Your task to perform on an android device: Clear all items from cart on bestbuy.com. Search for "macbook pro" on bestbuy.com, select the first entry, add it to the cart, then select checkout. Image 0: 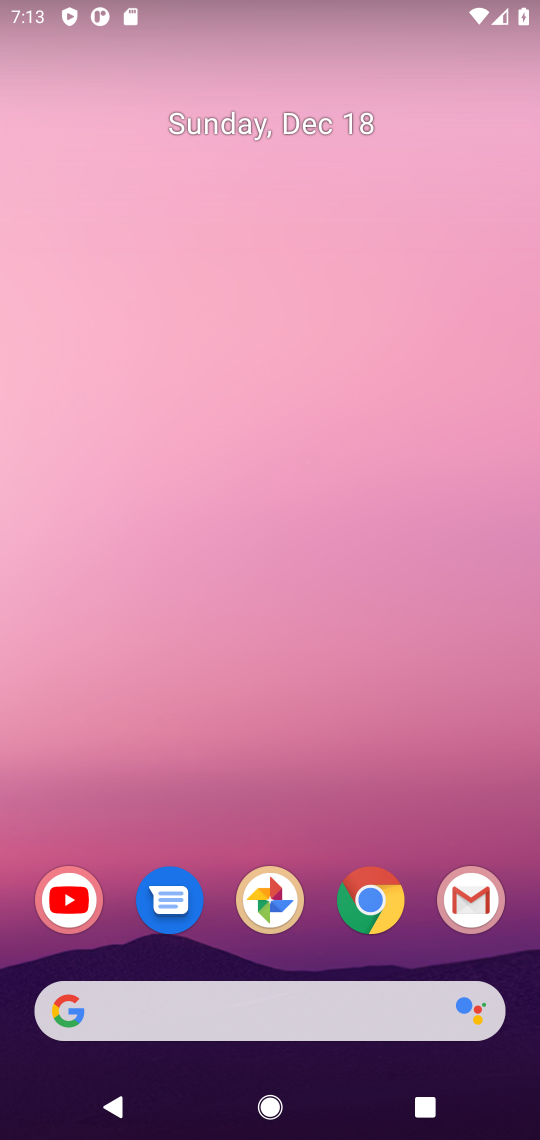
Step 0: click (382, 905)
Your task to perform on an android device: Clear all items from cart on bestbuy.com. Search for "macbook pro" on bestbuy.com, select the first entry, add it to the cart, then select checkout. Image 1: 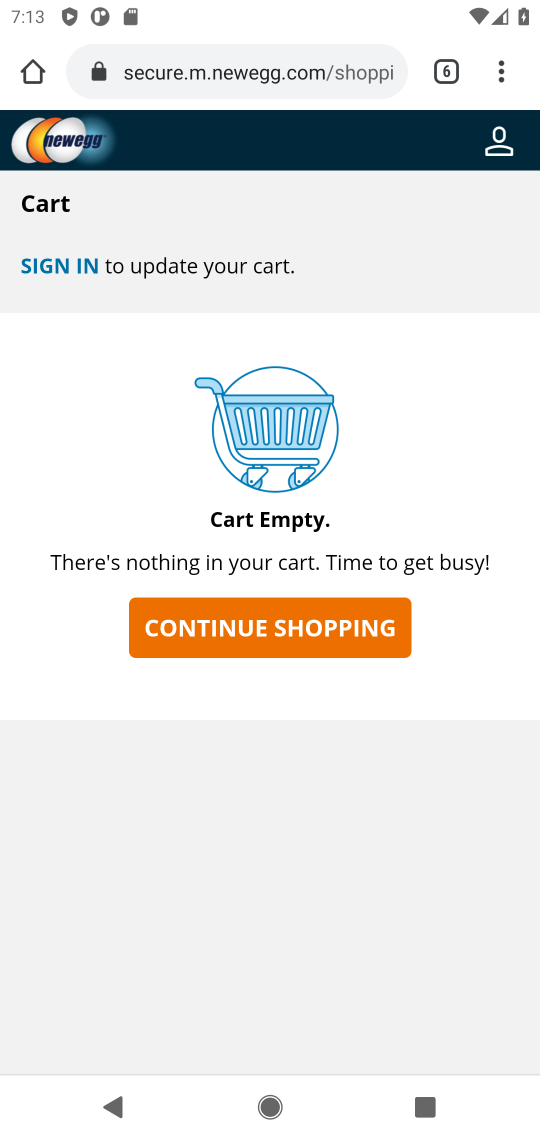
Step 1: click (432, 84)
Your task to perform on an android device: Clear all items from cart on bestbuy.com. Search for "macbook pro" on bestbuy.com, select the first entry, add it to the cart, then select checkout. Image 2: 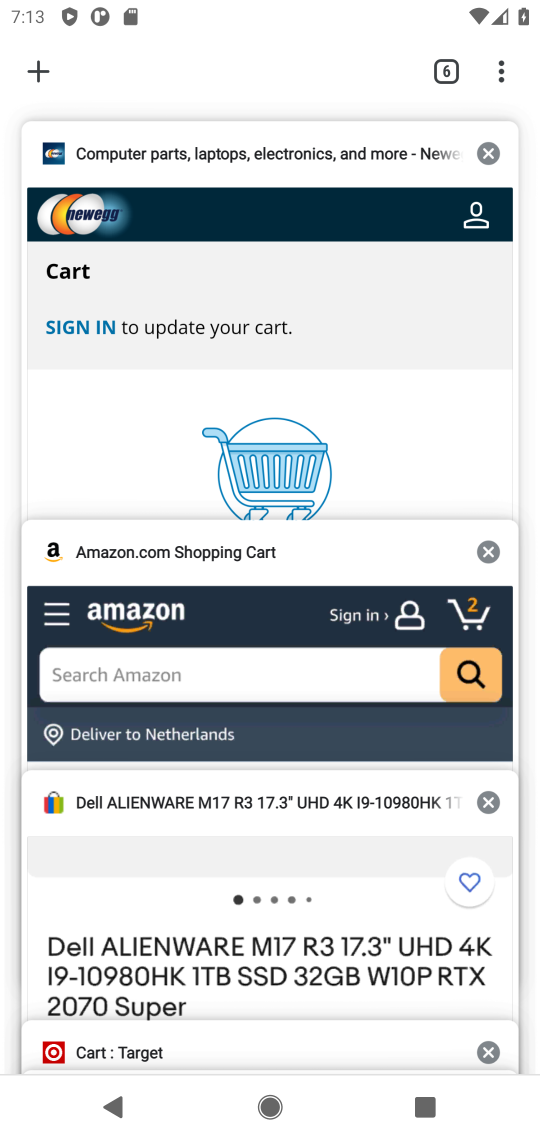
Step 2: drag from (283, 991) to (353, 213)
Your task to perform on an android device: Clear all items from cart on bestbuy.com. Search for "macbook pro" on bestbuy.com, select the first entry, add it to the cart, then select checkout. Image 3: 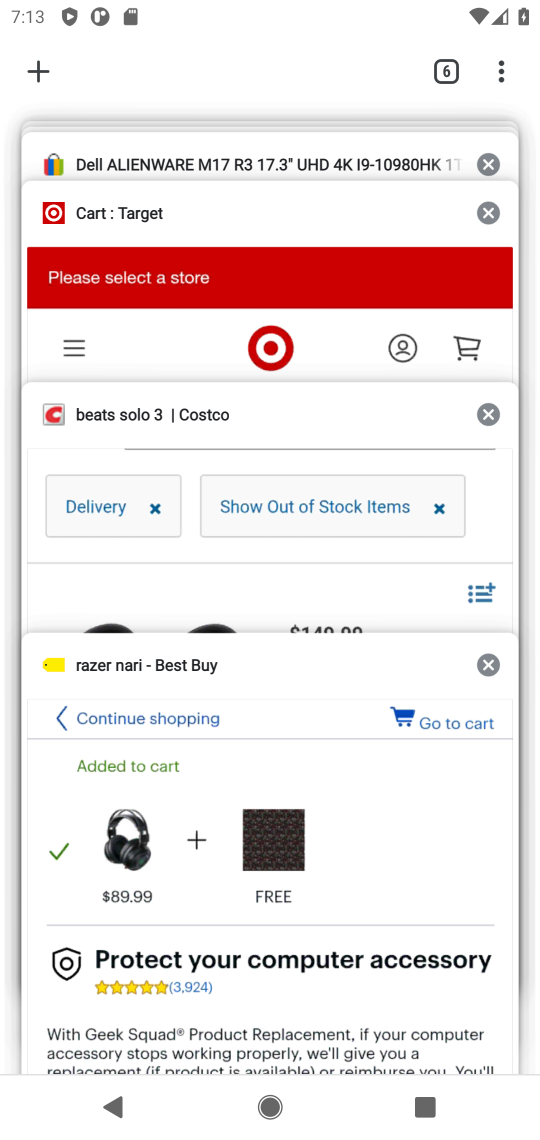
Step 3: click (274, 795)
Your task to perform on an android device: Clear all items from cart on bestbuy.com. Search for "macbook pro" on bestbuy.com, select the first entry, add it to the cart, then select checkout. Image 4: 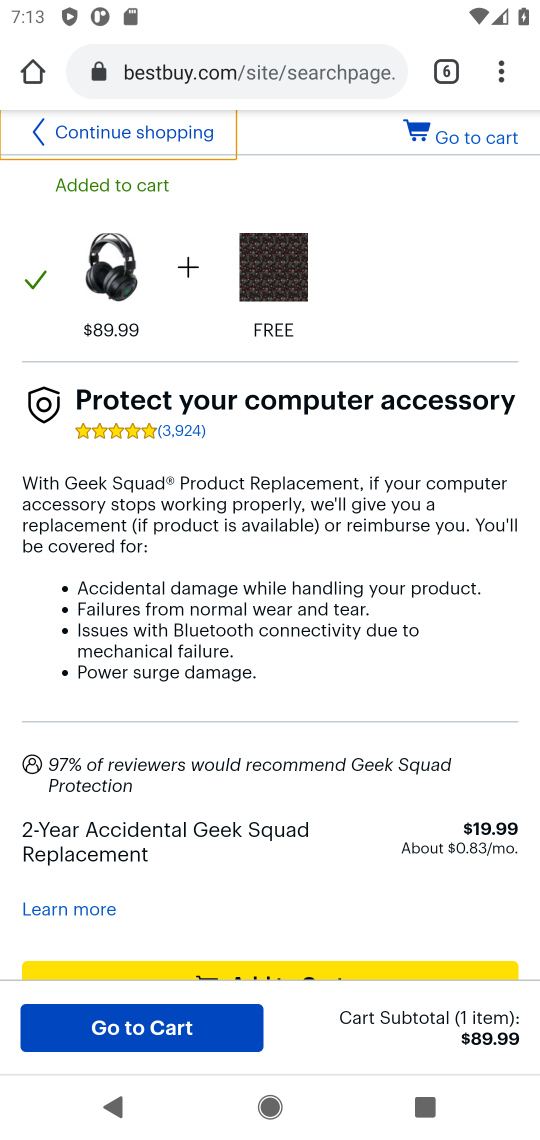
Step 4: click (455, 136)
Your task to perform on an android device: Clear all items from cart on bestbuy.com. Search for "macbook pro" on bestbuy.com, select the first entry, add it to the cart, then select checkout. Image 5: 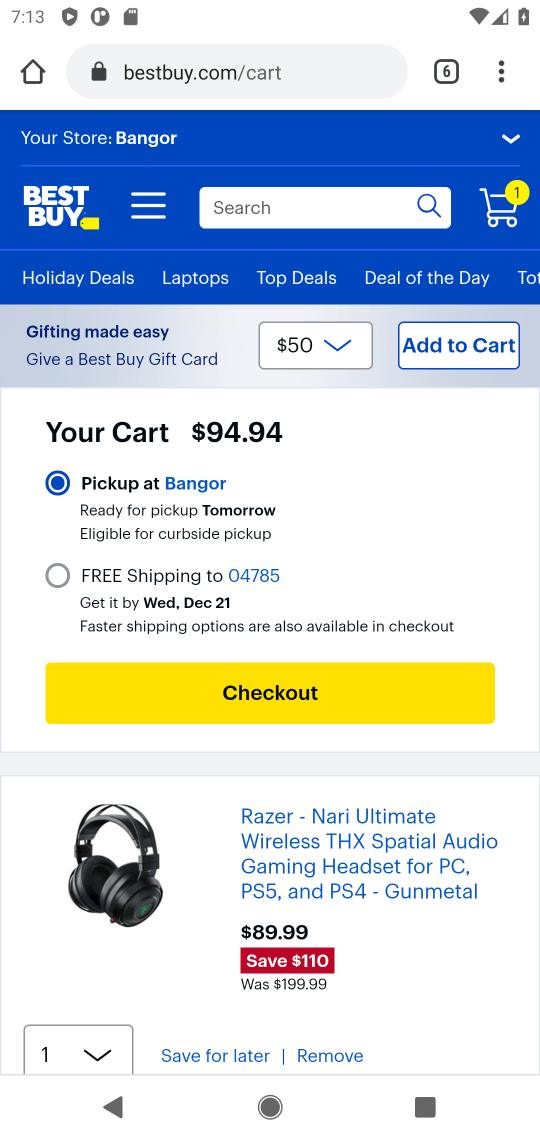
Step 5: click (332, 1052)
Your task to perform on an android device: Clear all items from cart on bestbuy.com. Search for "macbook pro" on bestbuy.com, select the first entry, add it to the cart, then select checkout. Image 6: 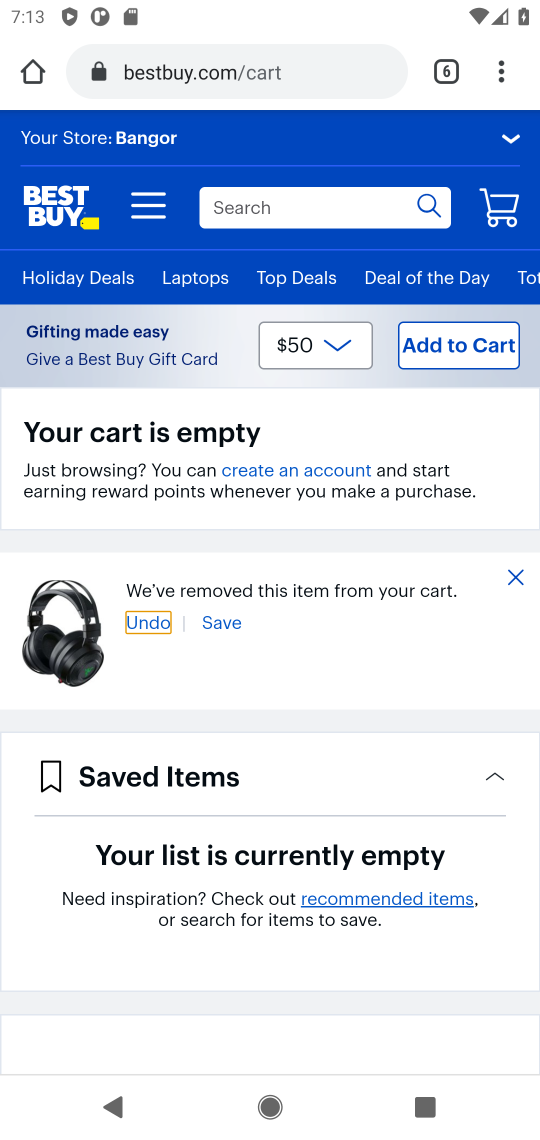
Step 6: click (266, 204)
Your task to perform on an android device: Clear all items from cart on bestbuy.com. Search for "macbook pro" on bestbuy.com, select the first entry, add it to the cart, then select checkout. Image 7: 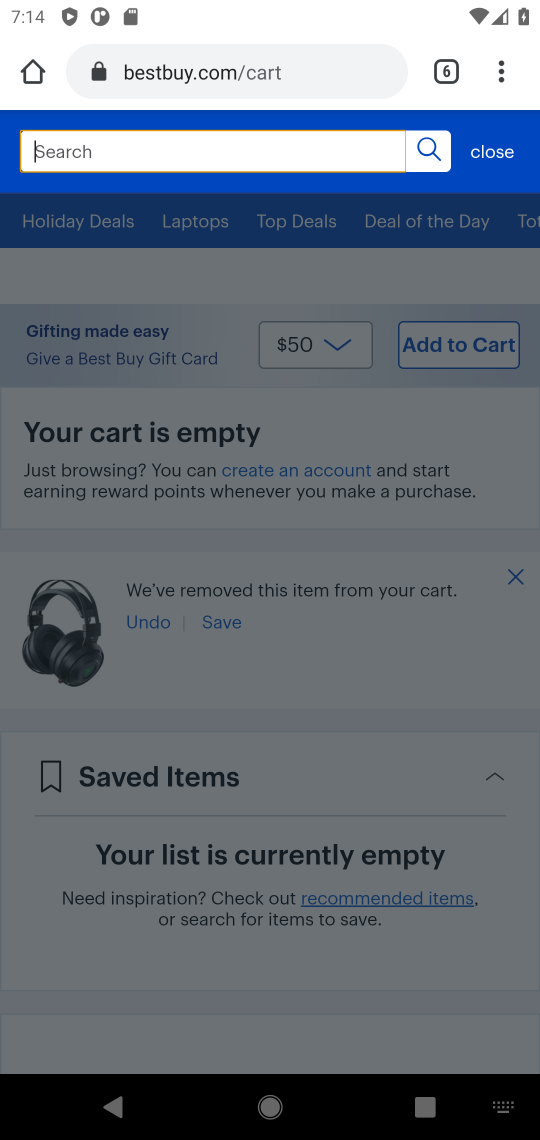
Step 7: type "macbook pro"
Your task to perform on an android device: Clear all items from cart on bestbuy.com. Search for "macbook pro" on bestbuy.com, select the first entry, add it to the cart, then select checkout. Image 8: 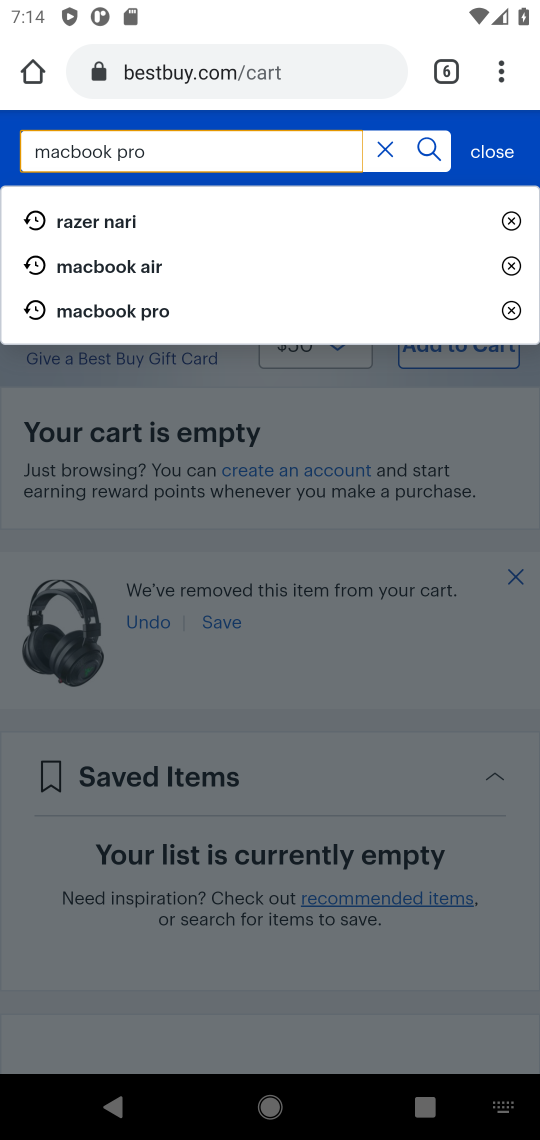
Step 8: click (430, 150)
Your task to perform on an android device: Clear all items from cart on bestbuy.com. Search for "macbook pro" on bestbuy.com, select the first entry, add it to the cart, then select checkout. Image 9: 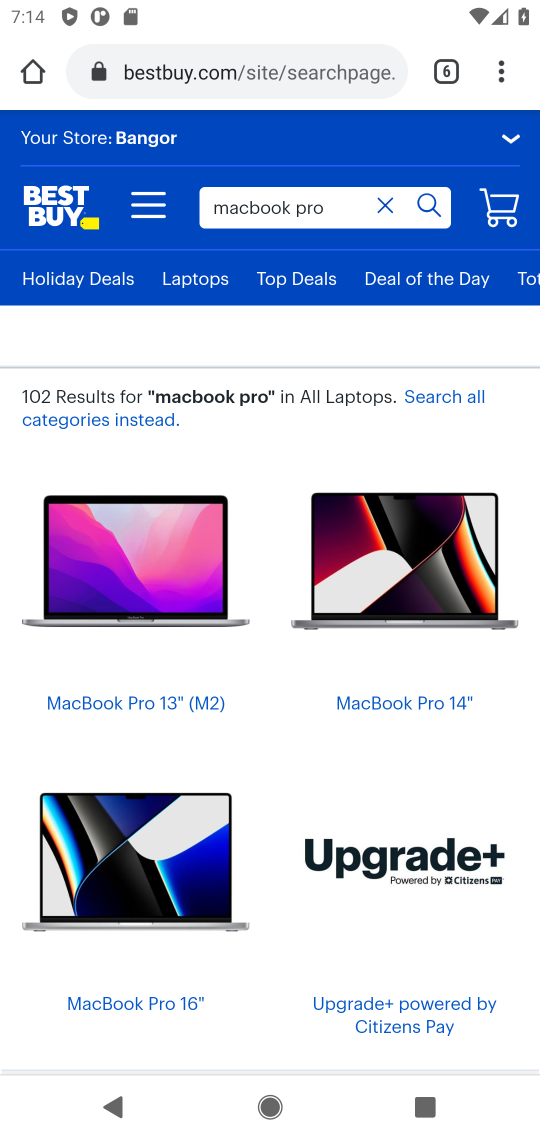
Step 9: drag from (308, 924) to (349, 462)
Your task to perform on an android device: Clear all items from cart on bestbuy.com. Search for "macbook pro" on bestbuy.com, select the first entry, add it to the cart, then select checkout. Image 10: 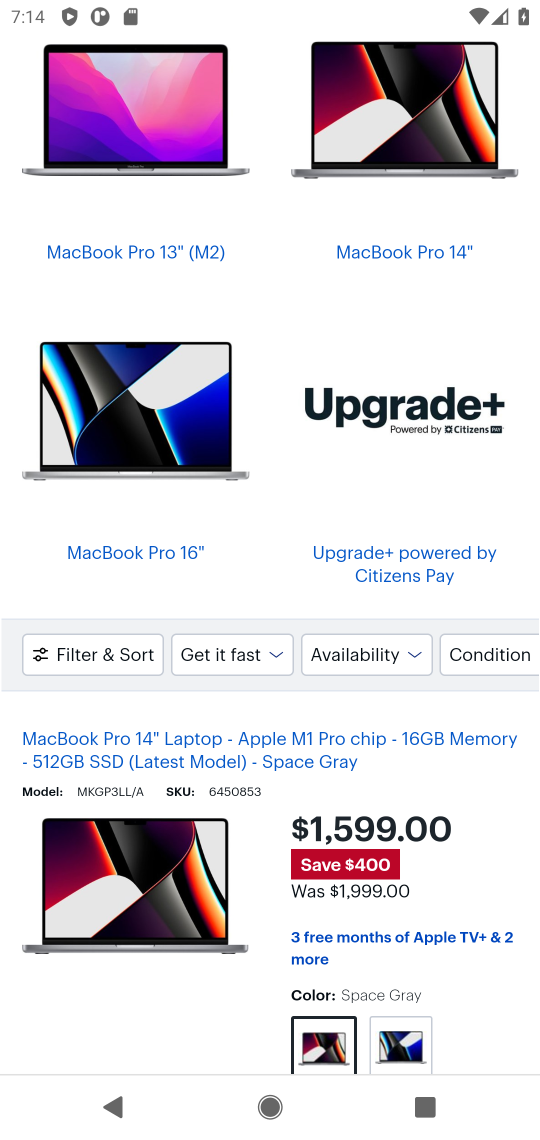
Step 10: drag from (430, 883) to (401, 552)
Your task to perform on an android device: Clear all items from cart on bestbuy.com. Search for "macbook pro" on bestbuy.com, select the first entry, add it to the cart, then select checkout. Image 11: 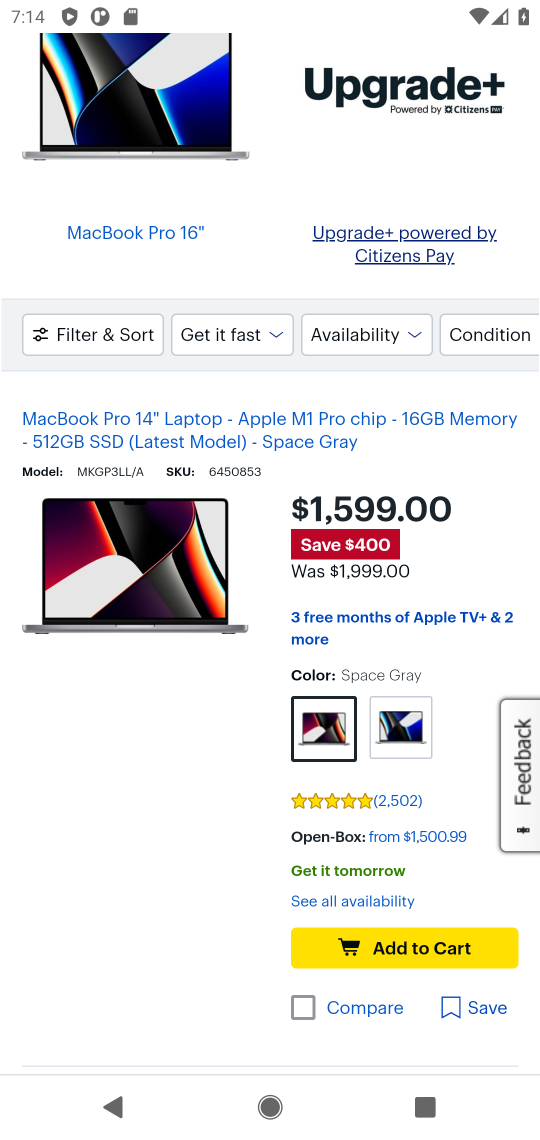
Step 11: click (405, 943)
Your task to perform on an android device: Clear all items from cart on bestbuy.com. Search for "macbook pro" on bestbuy.com, select the first entry, add it to the cart, then select checkout. Image 12: 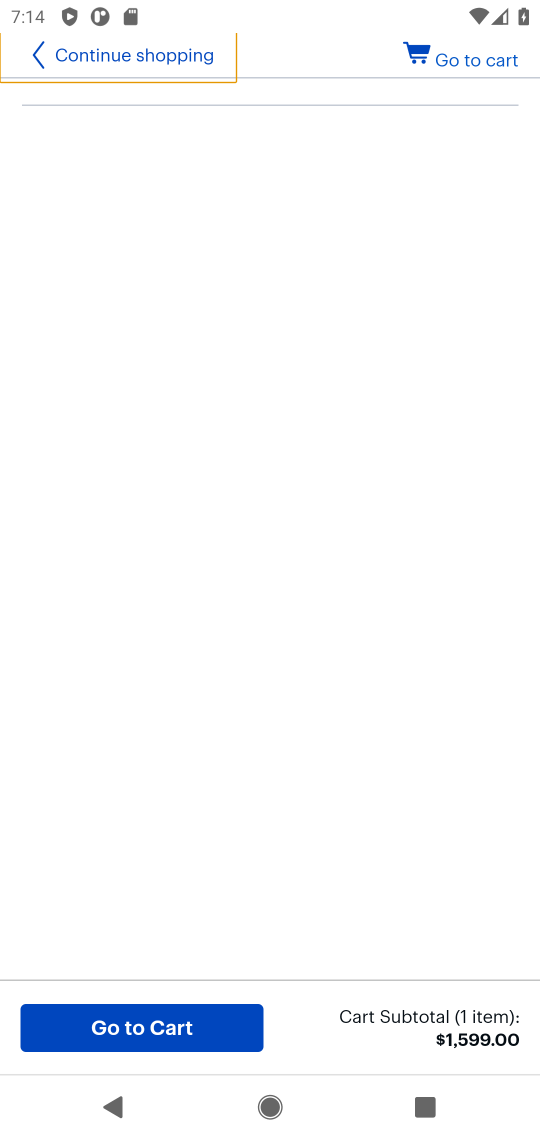
Step 12: task complete